Your task to perform on an android device: Go to Reddit.com Image 0: 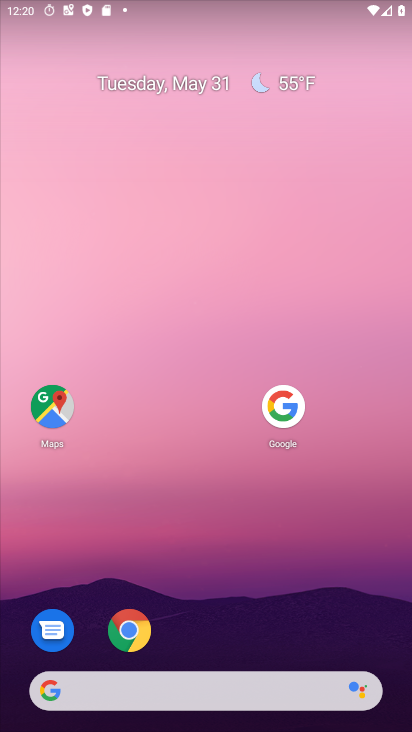
Step 0: click (126, 629)
Your task to perform on an android device: Go to Reddit.com Image 1: 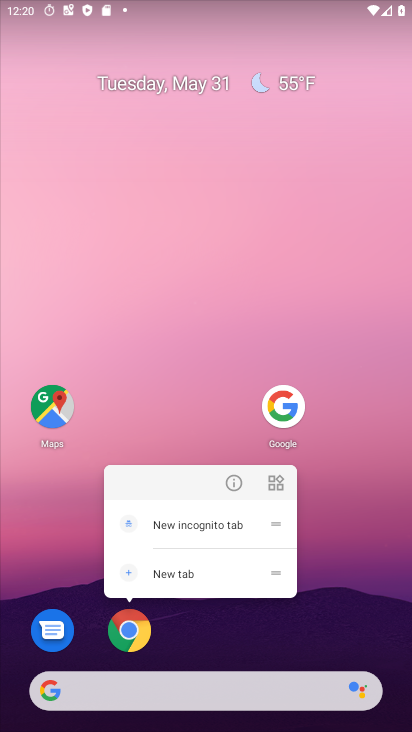
Step 1: click (132, 632)
Your task to perform on an android device: Go to Reddit.com Image 2: 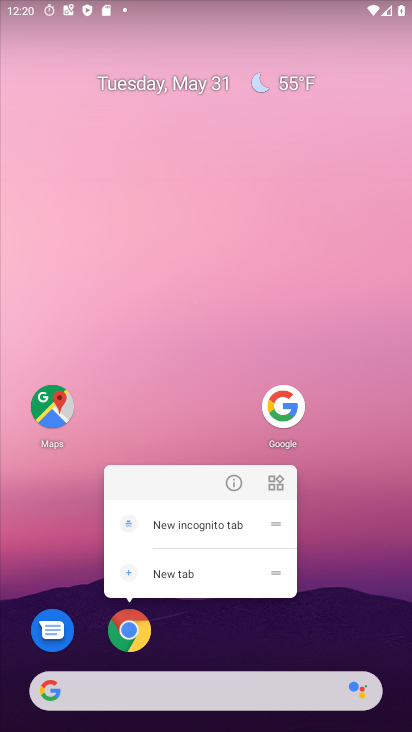
Step 2: click (130, 636)
Your task to perform on an android device: Go to Reddit.com Image 3: 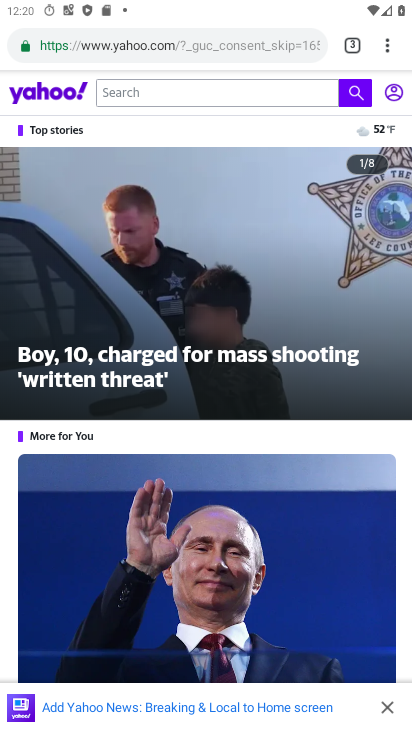
Step 3: drag from (391, 50) to (205, 140)
Your task to perform on an android device: Go to Reddit.com Image 4: 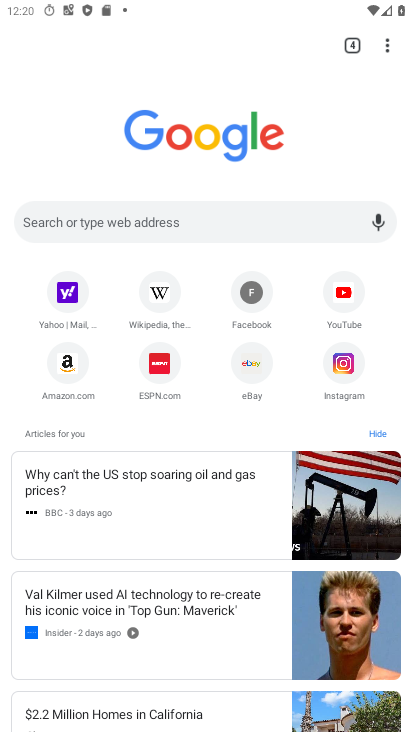
Step 4: click (149, 219)
Your task to perform on an android device: Go to Reddit.com Image 5: 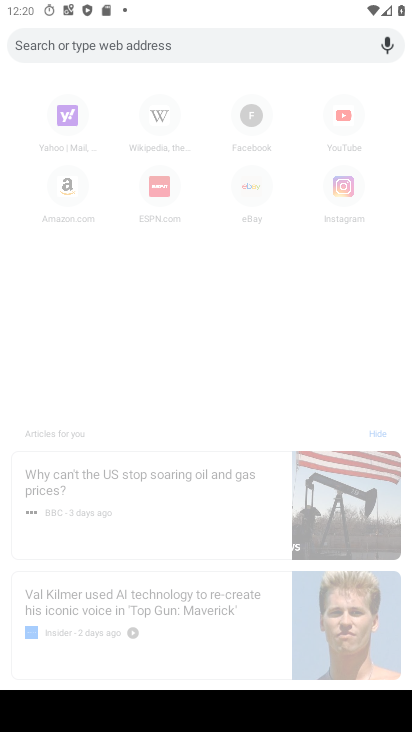
Step 5: type "reddit.com"
Your task to perform on an android device: Go to Reddit.com Image 6: 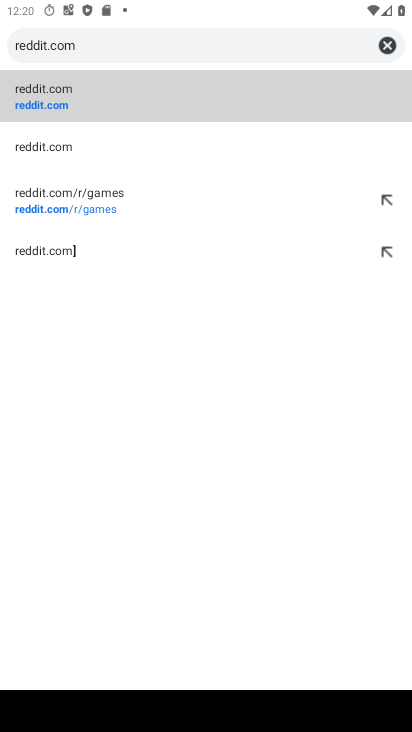
Step 6: click (100, 107)
Your task to perform on an android device: Go to Reddit.com Image 7: 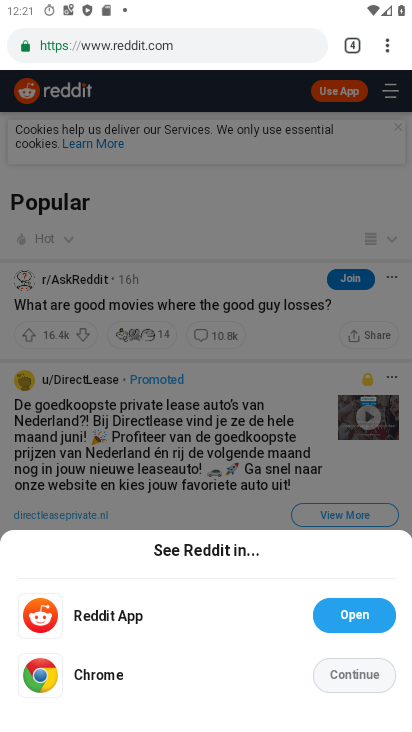
Step 7: task complete